Your task to perform on an android device: Go to network settings Image 0: 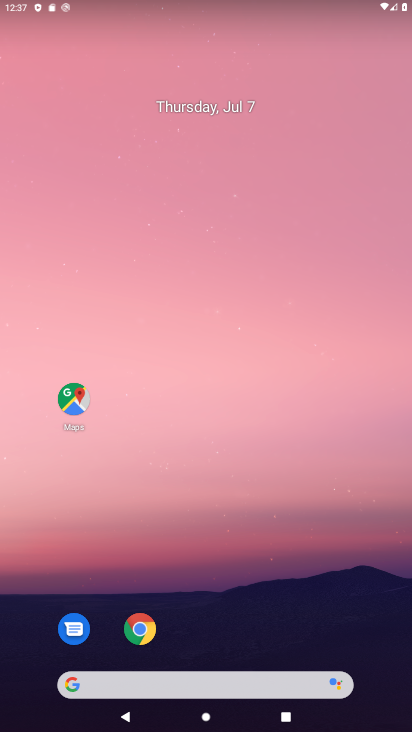
Step 0: drag from (270, 609) to (305, 98)
Your task to perform on an android device: Go to network settings Image 1: 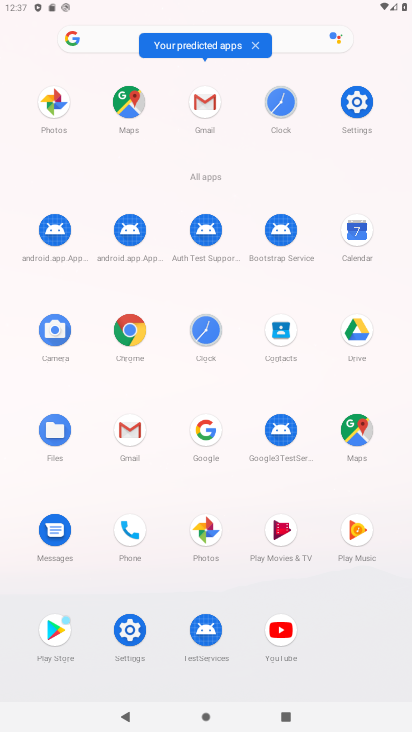
Step 1: click (116, 645)
Your task to perform on an android device: Go to network settings Image 2: 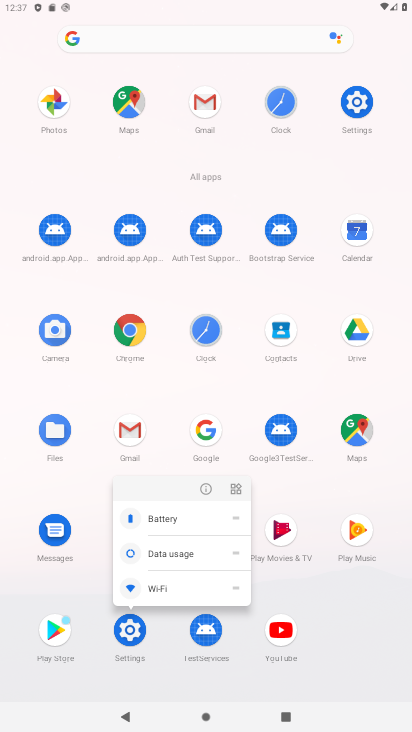
Step 2: click (131, 630)
Your task to perform on an android device: Go to network settings Image 3: 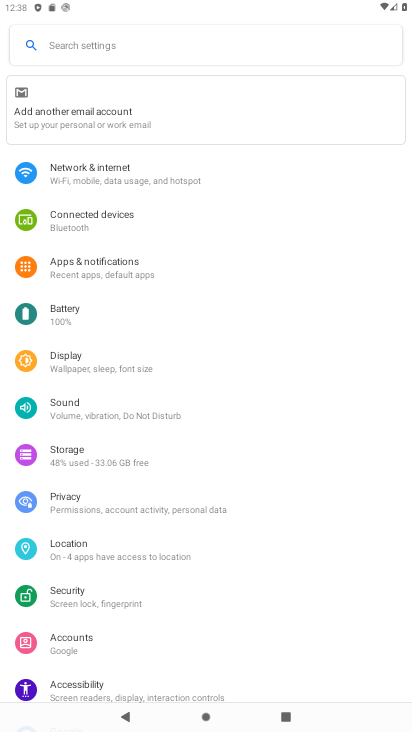
Step 3: click (109, 179)
Your task to perform on an android device: Go to network settings Image 4: 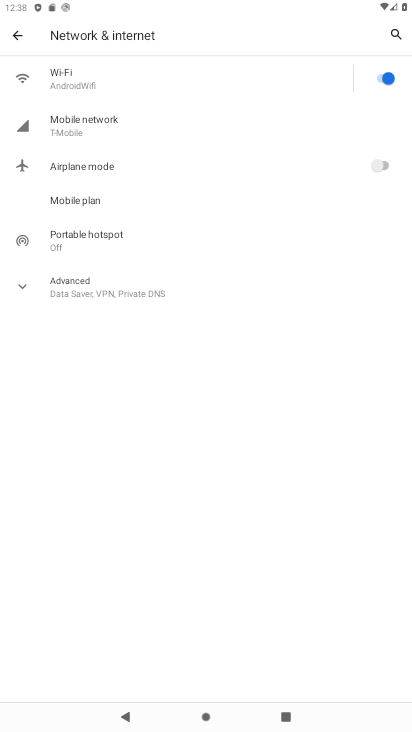
Step 4: click (96, 123)
Your task to perform on an android device: Go to network settings Image 5: 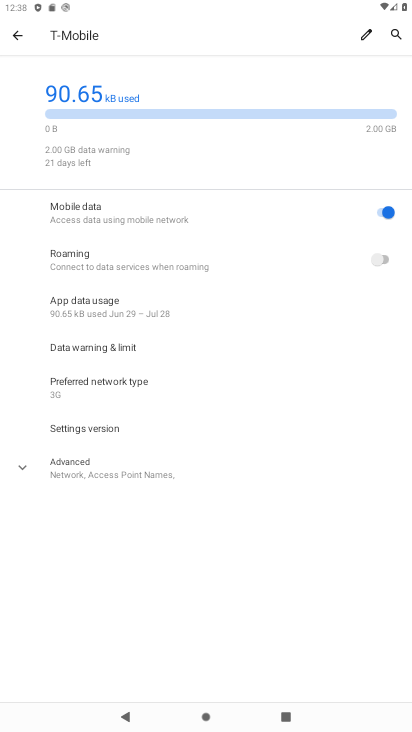
Step 5: click (96, 465)
Your task to perform on an android device: Go to network settings Image 6: 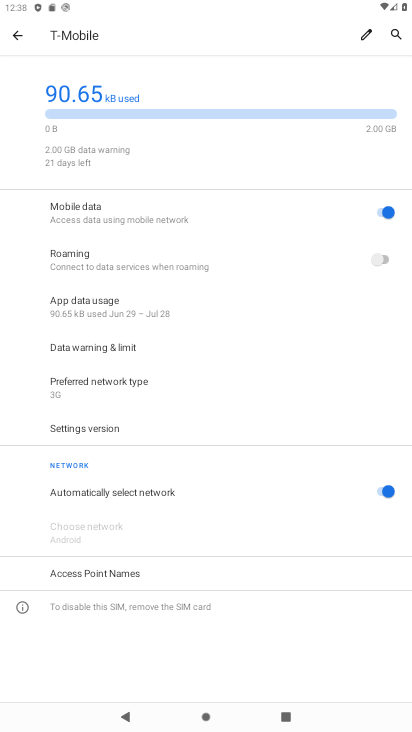
Step 6: task complete